Your task to perform on an android device: Open Youtube and go to "Your channel" Image 0: 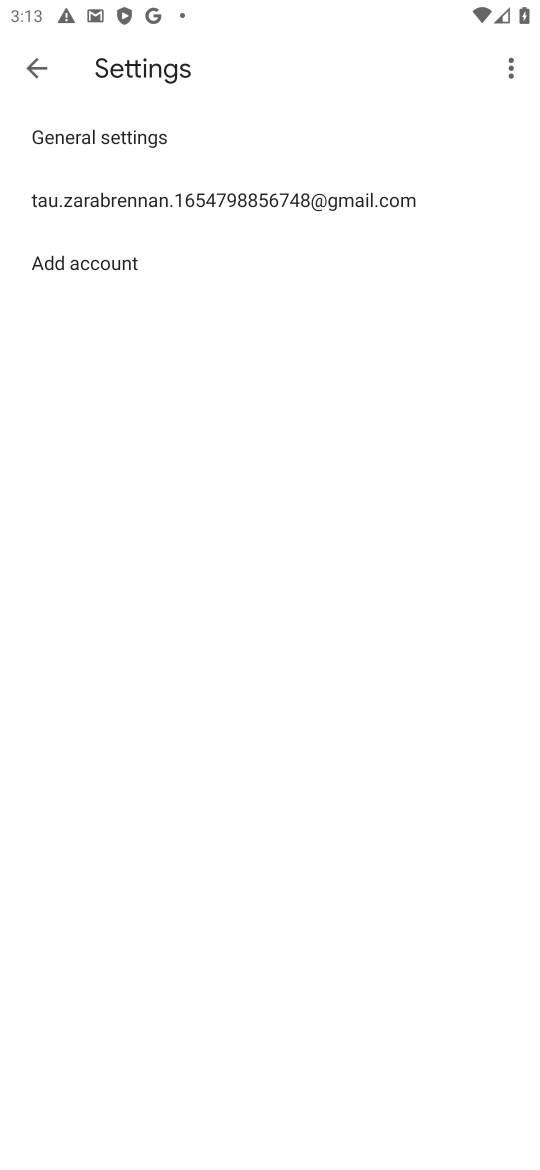
Step 0: press back button
Your task to perform on an android device: Open Youtube and go to "Your channel" Image 1: 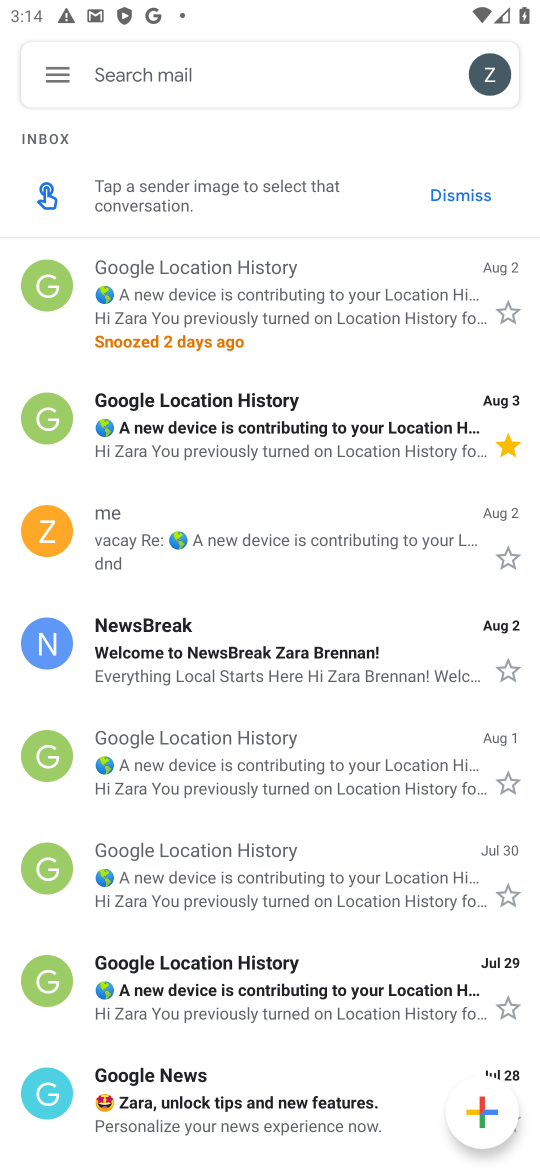
Step 1: press home button
Your task to perform on an android device: Open Youtube and go to "Your channel" Image 2: 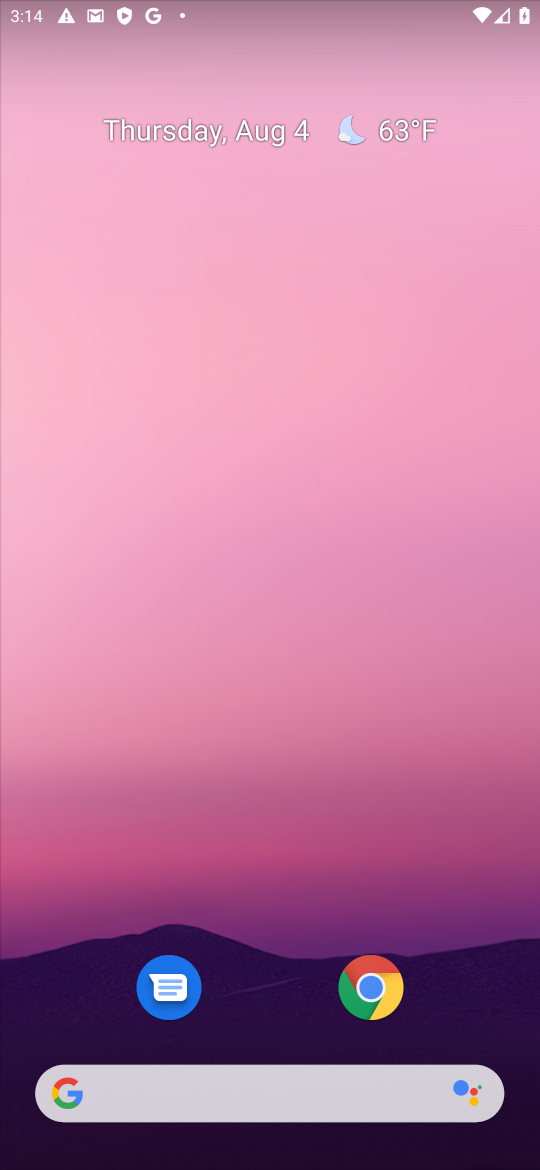
Step 2: drag from (292, 501) to (302, 78)
Your task to perform on an android device: Open Youtube and go to "Your channel" Image 3: 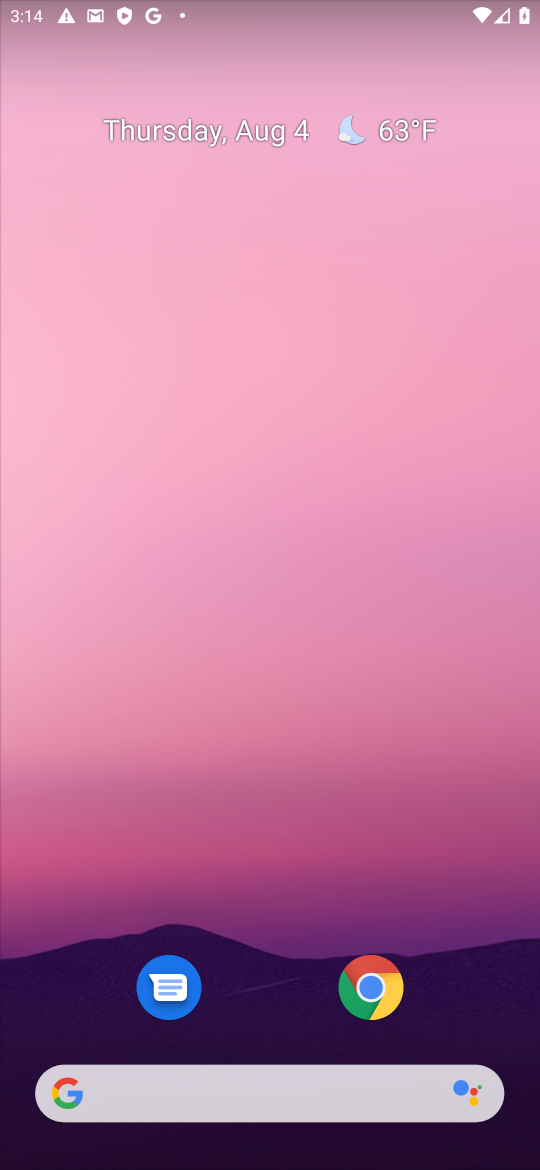
Step 3: drag from (256, 538) to (247, 169)
Your task to perform on an android device: Open Youtube and go to "Your channel" Image 4: 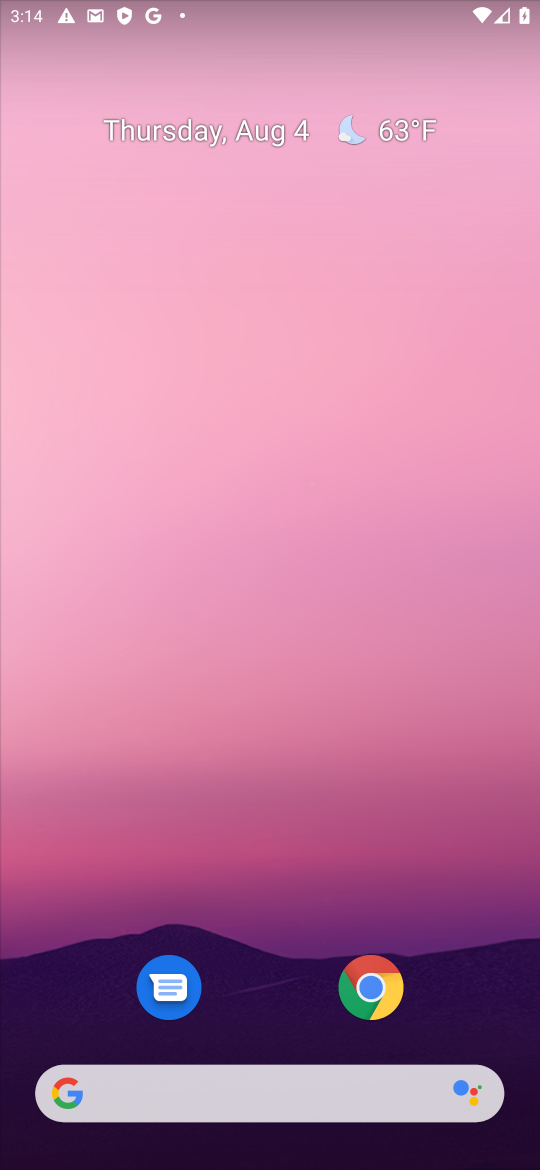
Step 4: drag from (276, 987) to (287, 97)
Your task to perform on an android device: Open Youtube and go to "Your channel" Image 5: 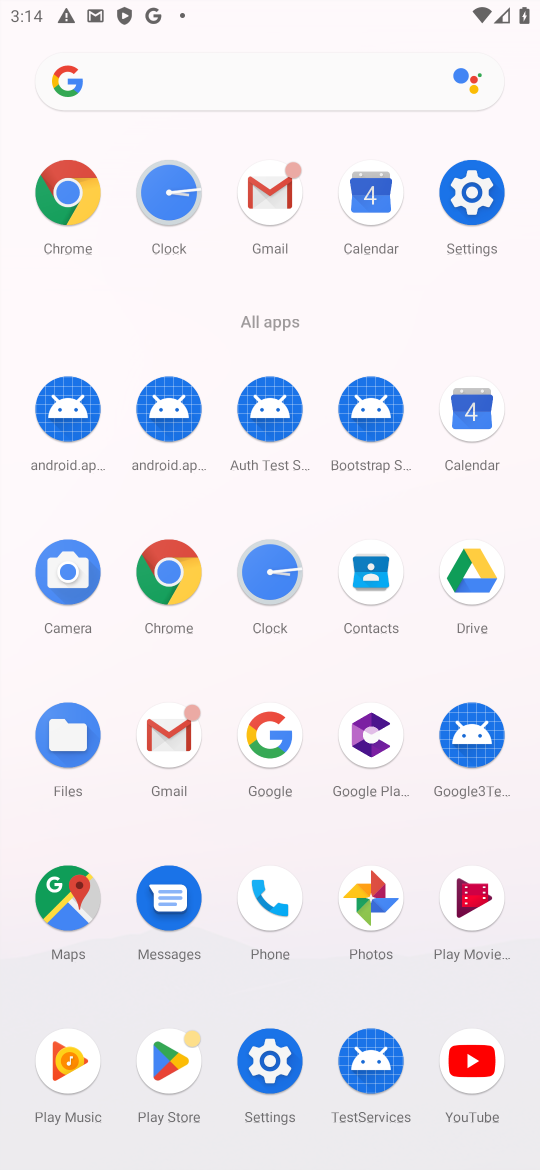
Step 5: click (471, 1078)
Your task to perform on an android device: Open Youtube and go to "Your channel" Image 6: 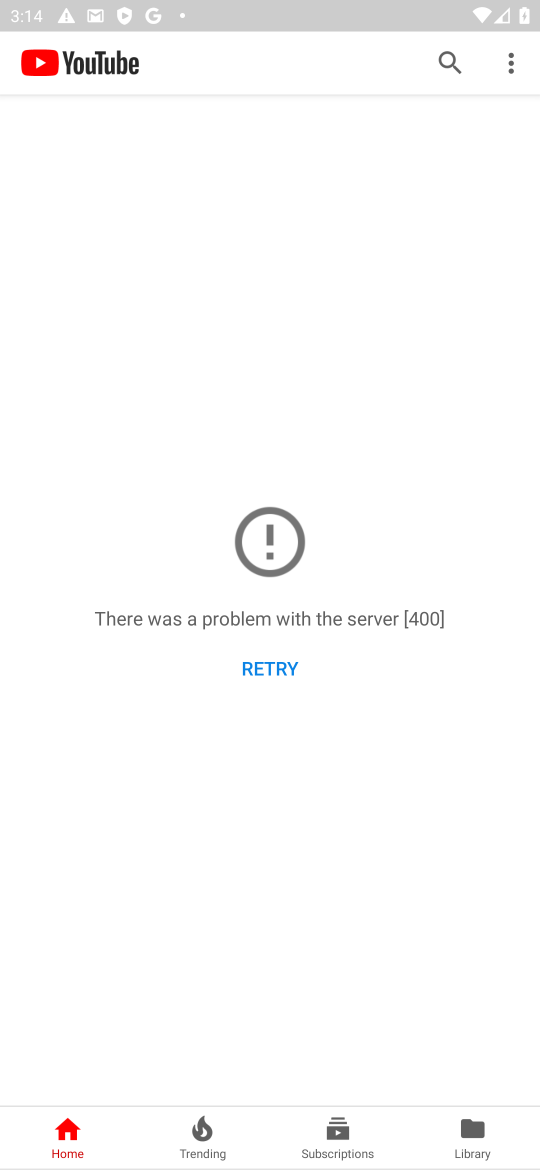
Step 6: click (471, 1135)
Your task to perform on an android device: Open Youtube and go to "Your channel" Image 7: 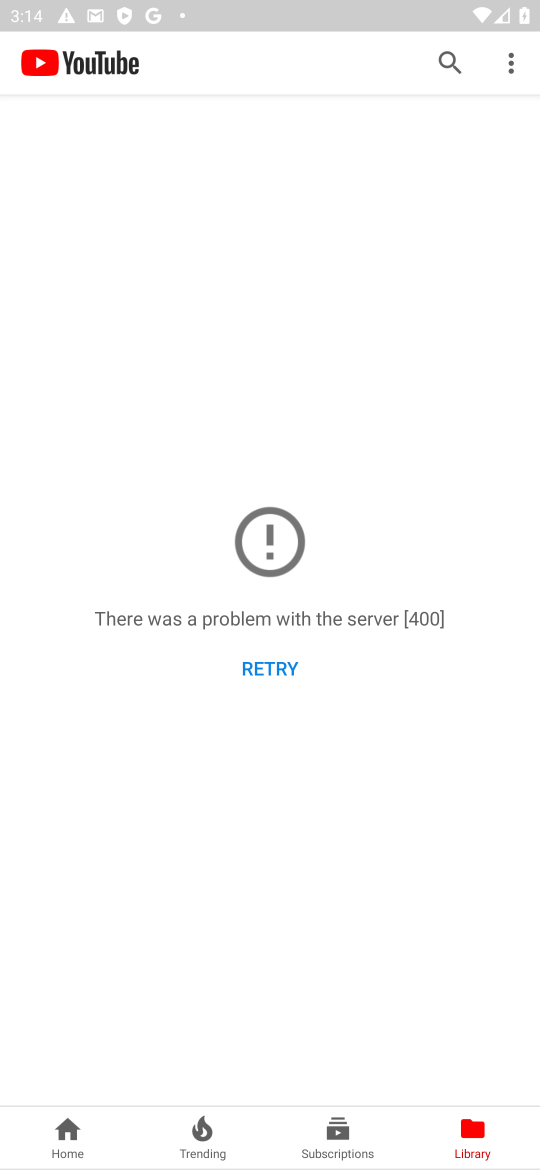
Step 7: task complete